Your task to perform on an android device: Look up the top rated headphones on Amazon. Image 0: 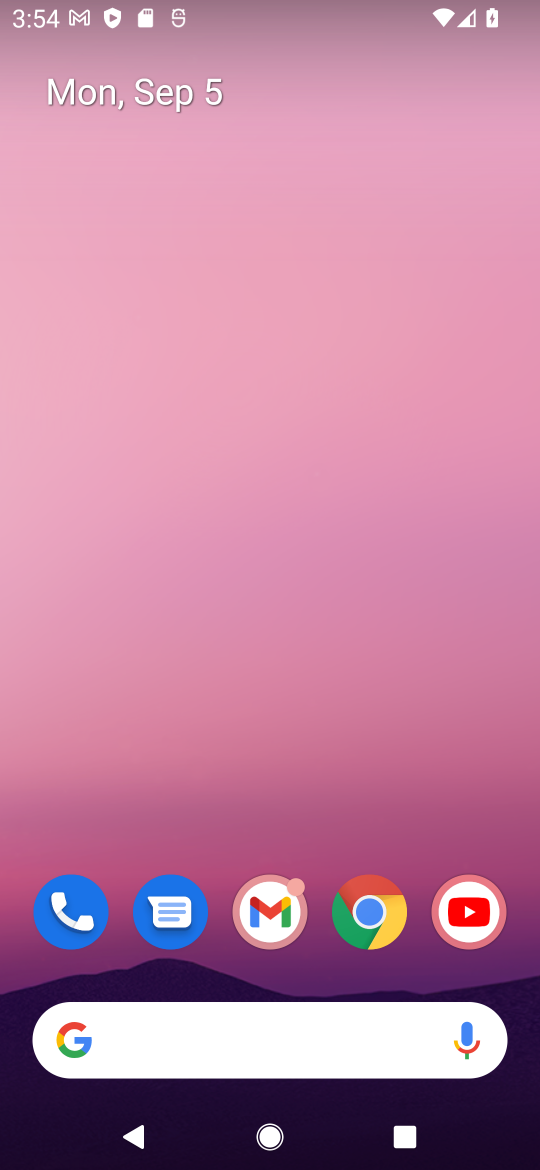
Step 0: click (339, 923)
Your task to perform on an android device: Look up the top rated headphones on Amazon. Image 1: 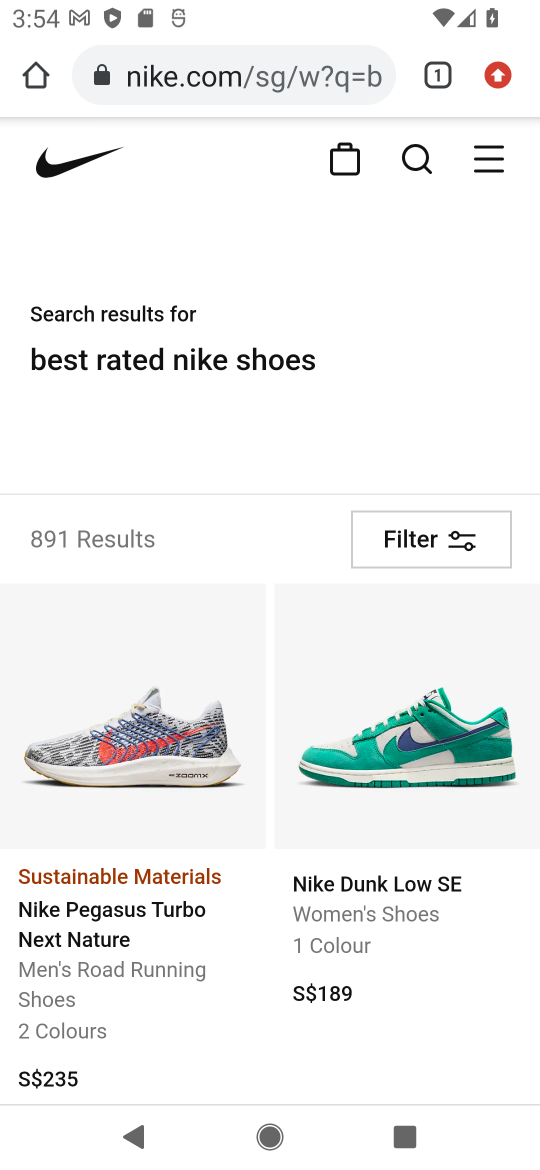
Step 1: click (306, 71)
Your task to perform on an android device: Look up the top rated headphones on Amazon. Image 2: 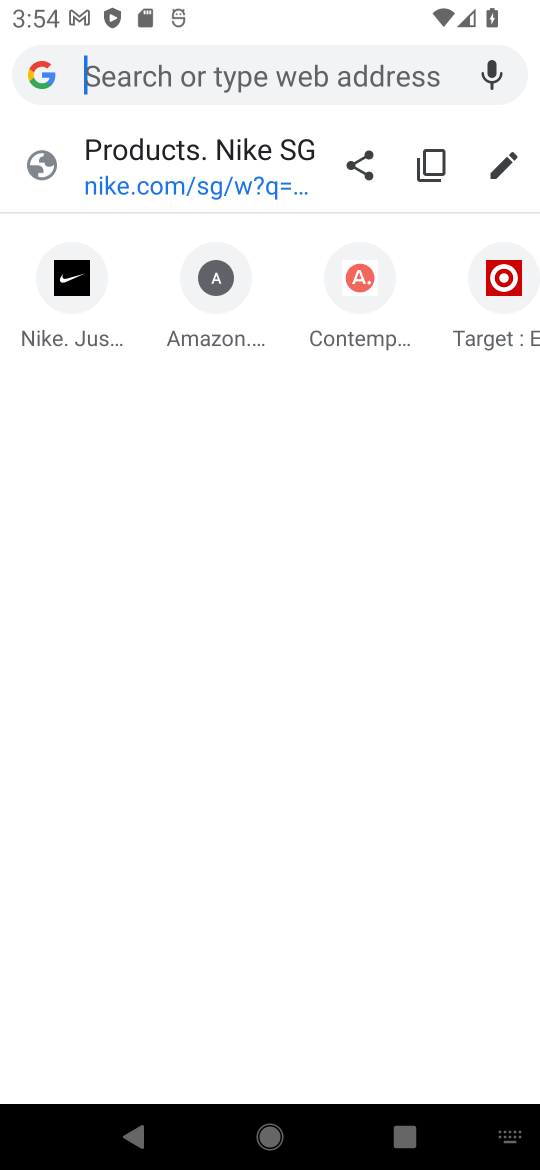
Step 2: type "amazon"
Your task to perform on an android device: Look up the top rated headphones on Amazon. Image 3: 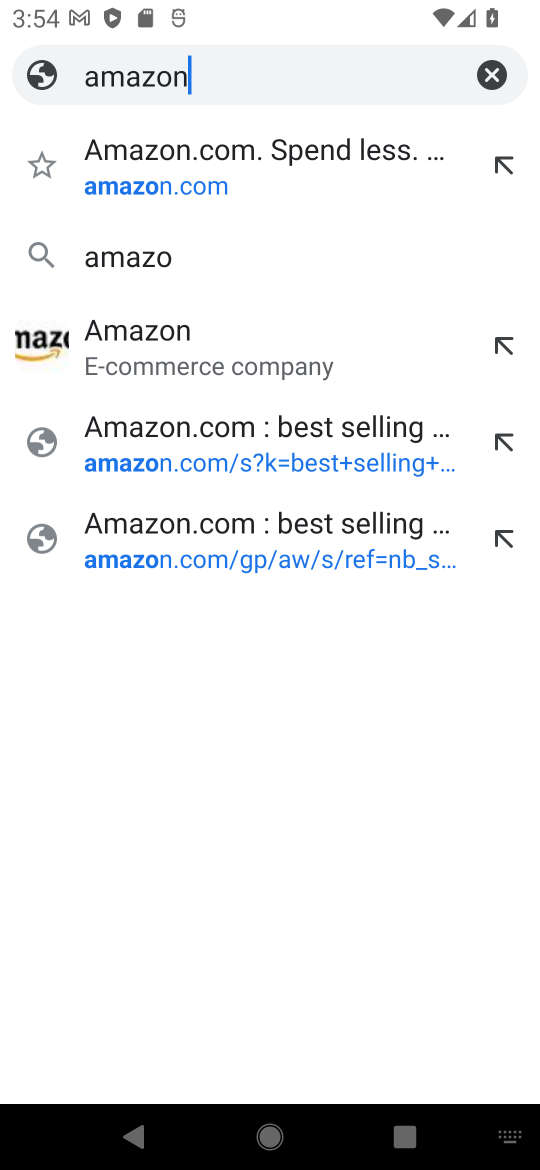
Step 3: type ""
Your task to perform on an android device: Look up the top rated headphones on Amazon. Image 4: 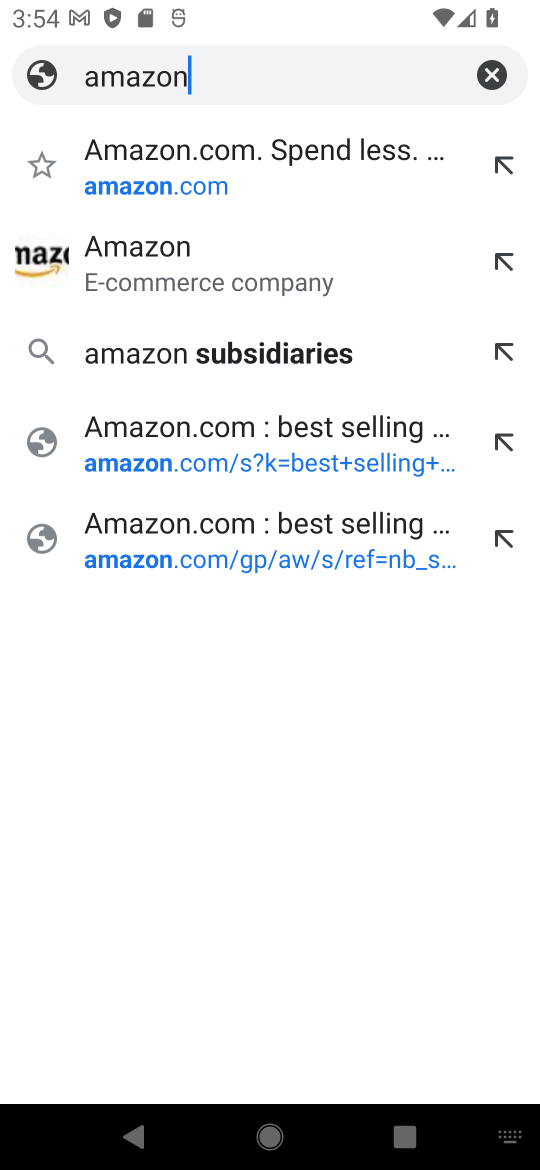
Step 4: press enter
Your task to perform on an android device: Look up the top rated headphones on Amazon. Image 5: 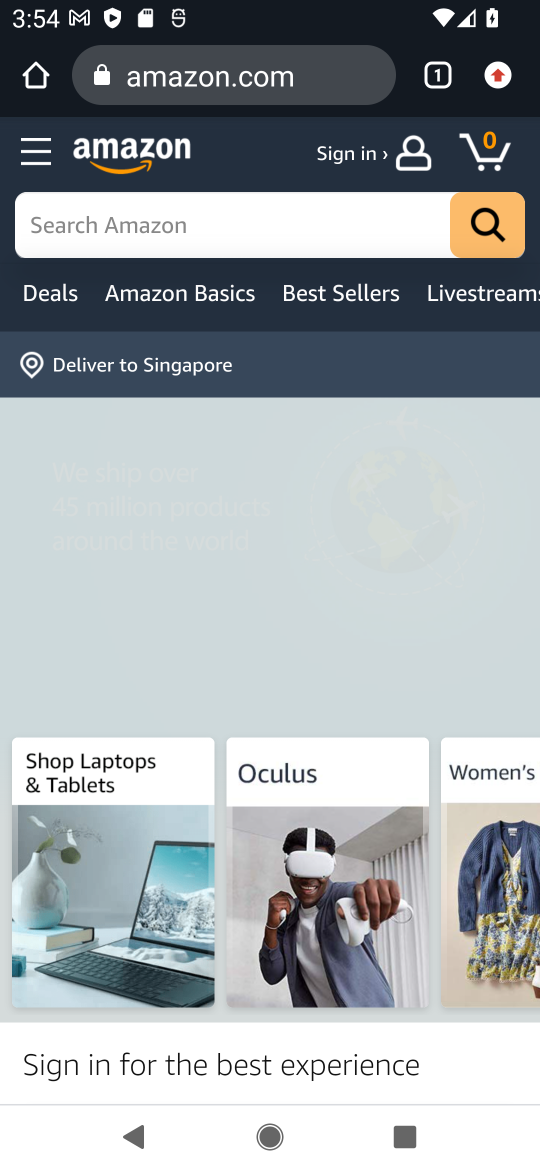
Step 5: click (334, 215)
Your task to perform on an android device: Look up the top rated headphones on Amazon. Image 6: 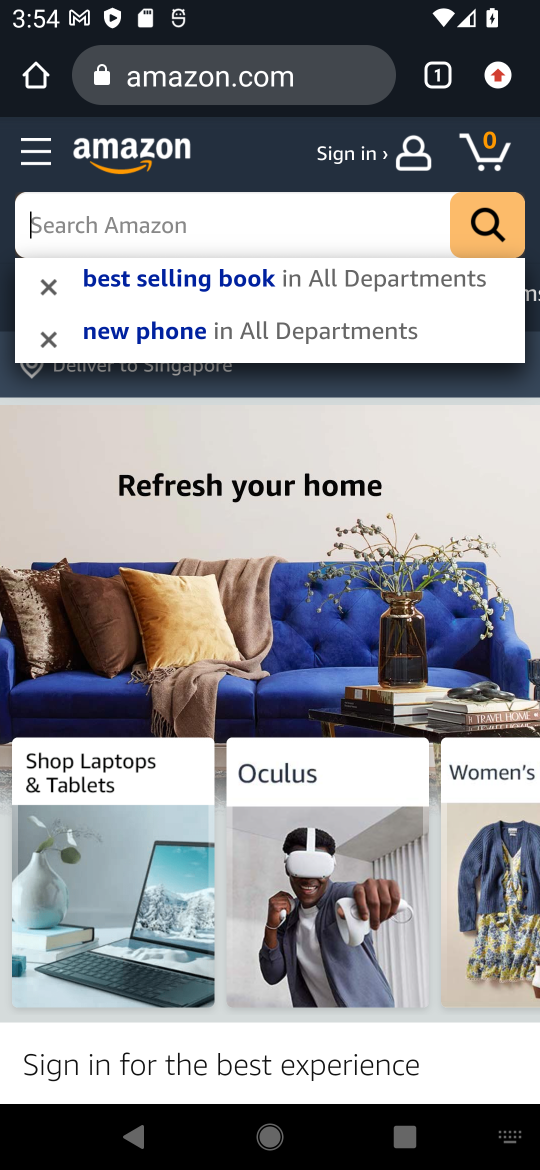
Step 6: type "headphones"
Your task to perform on an android device: Look up the top rated headphones on Amazon. Image 7: 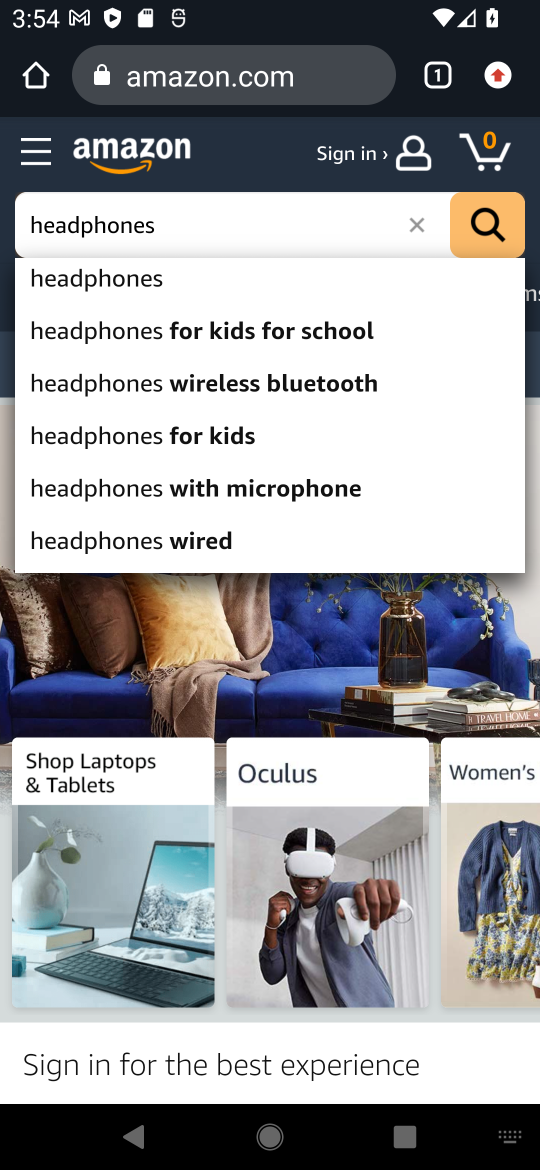
Step 7: press enter
Your task to perform on an android device: Look up the top rated headphones on Amazon. Image 8: 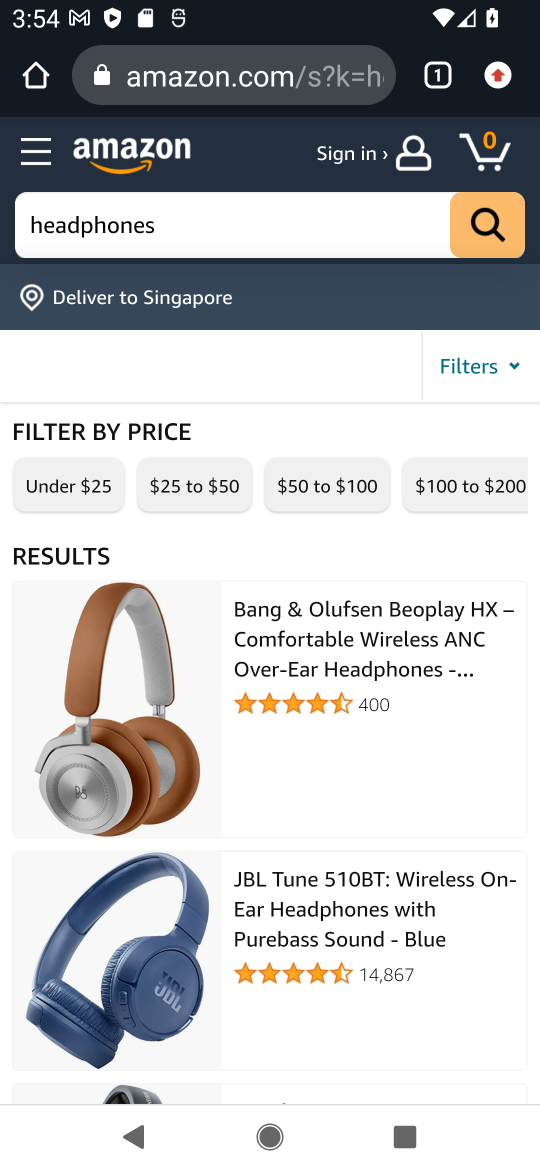
Step 8: click (494, 364)
Your task to perform on an android device: Look up the top rated headphones on Amazon. Image 9: 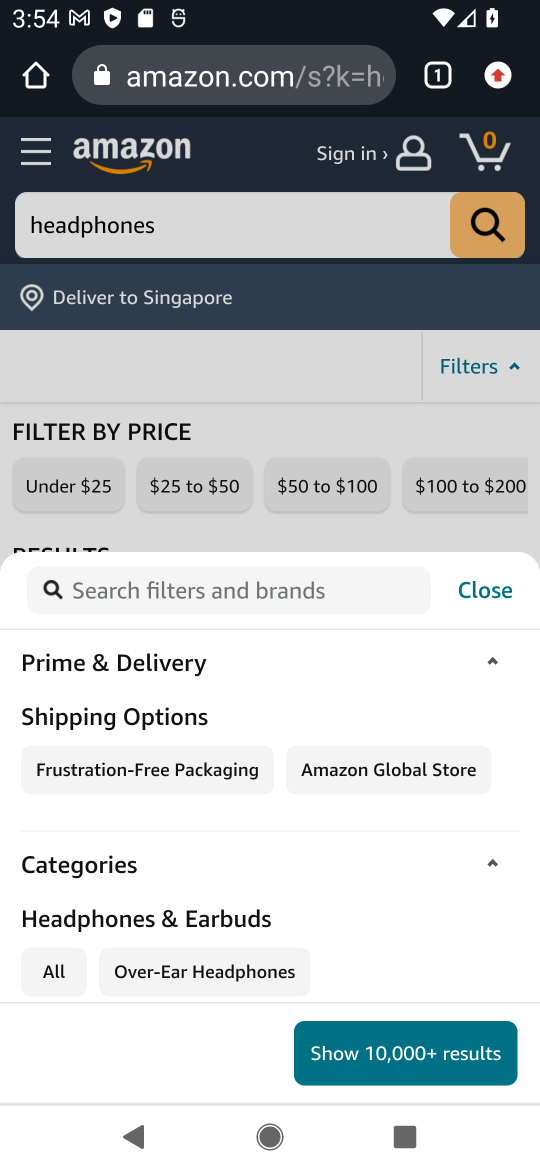
Step 9: drag from (404, 869) to (412, 648)
Your task to perform on an android device: Look up the top rated headphones on Amazon. Image 10: 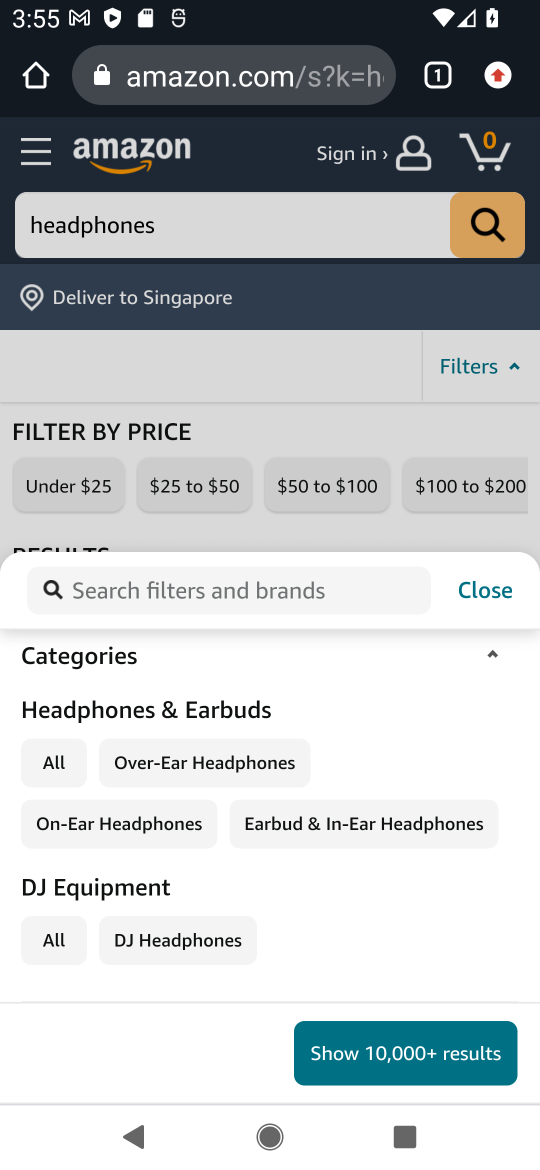
Step 10: drag from (408, 862) to (422, 683)
Your task to perform on an android device: Look up the top rated headphones on Amazon. Image 11: 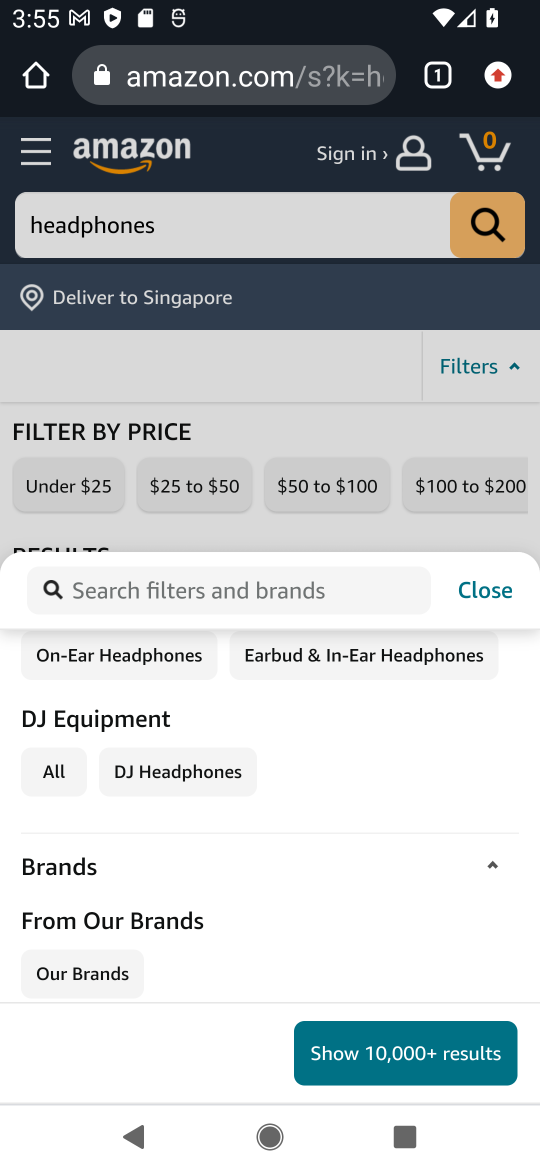
Step 11: drag from (424, 891) to (418, 722)
Your task to perform on an android device: Look up the top rated headphones on Amazon. Image 12: 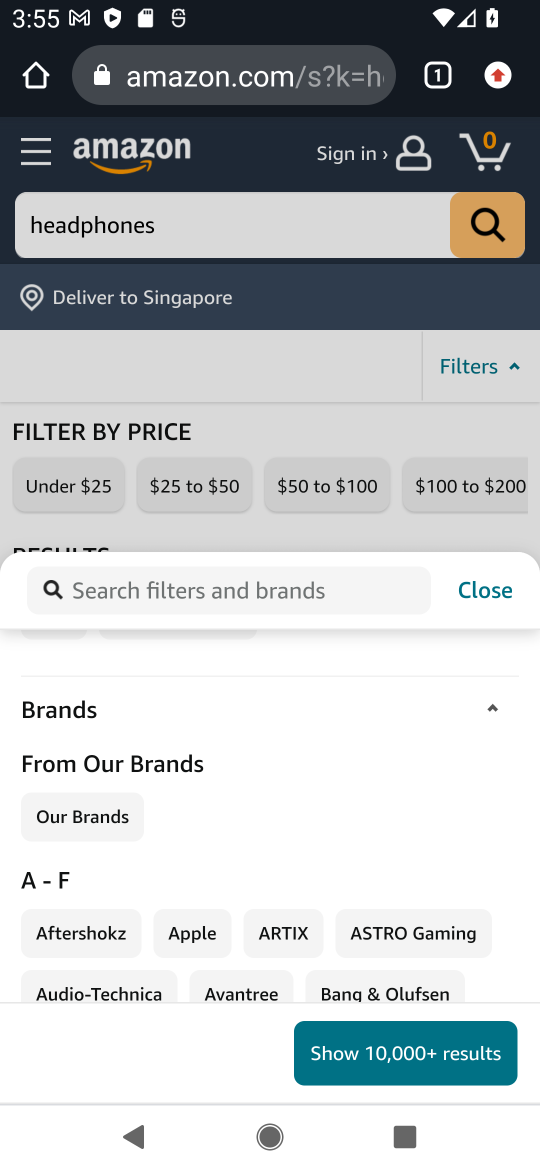
Step 12: drag from (411, 909) to (411, 656)
Your task to perform on an android device: Look up the top rated headphones on Amazon. Image 13: 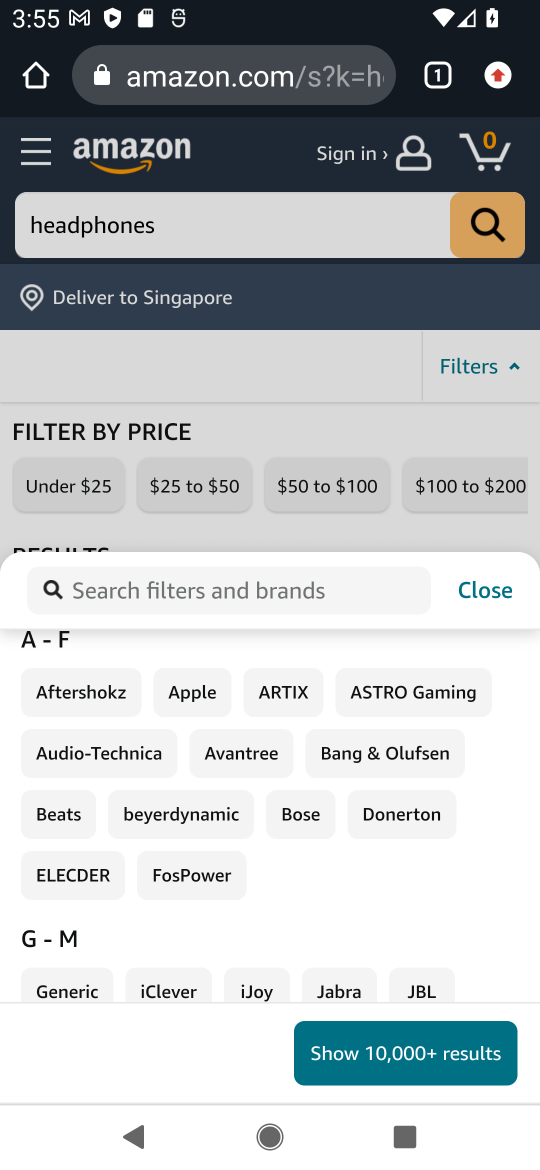
Step 13: drag from (407, 921) to (410, 676)
Your task to perform on an android device: Look up the top rated headphones on Amazon. Image 14: 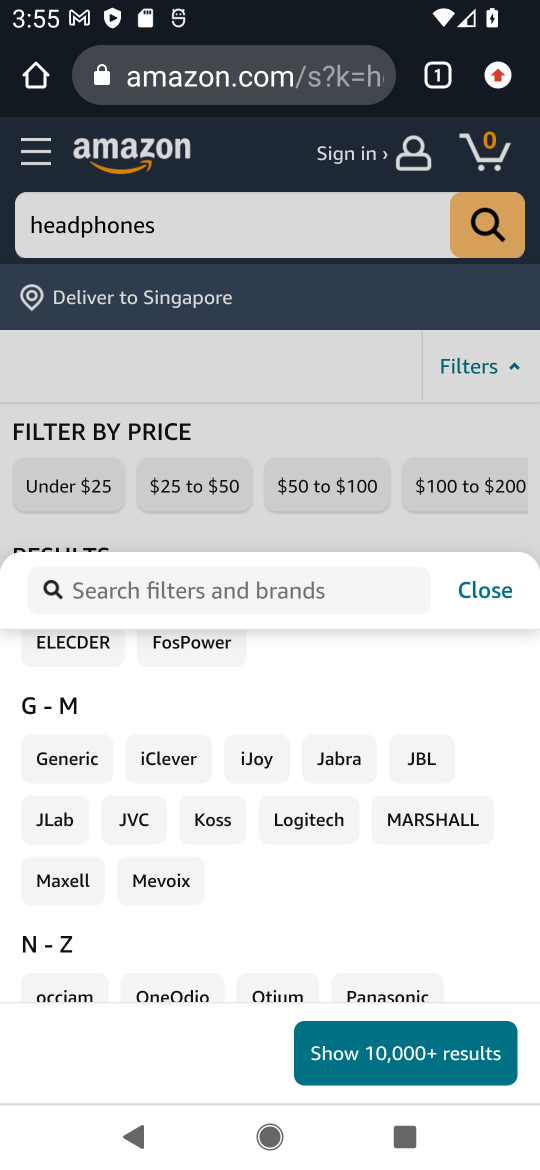
Step 14: drag from (392, 910) to (393, 661)
Your task to perform on an android device: Look up the top rated headphones on Amazon. Image 15: 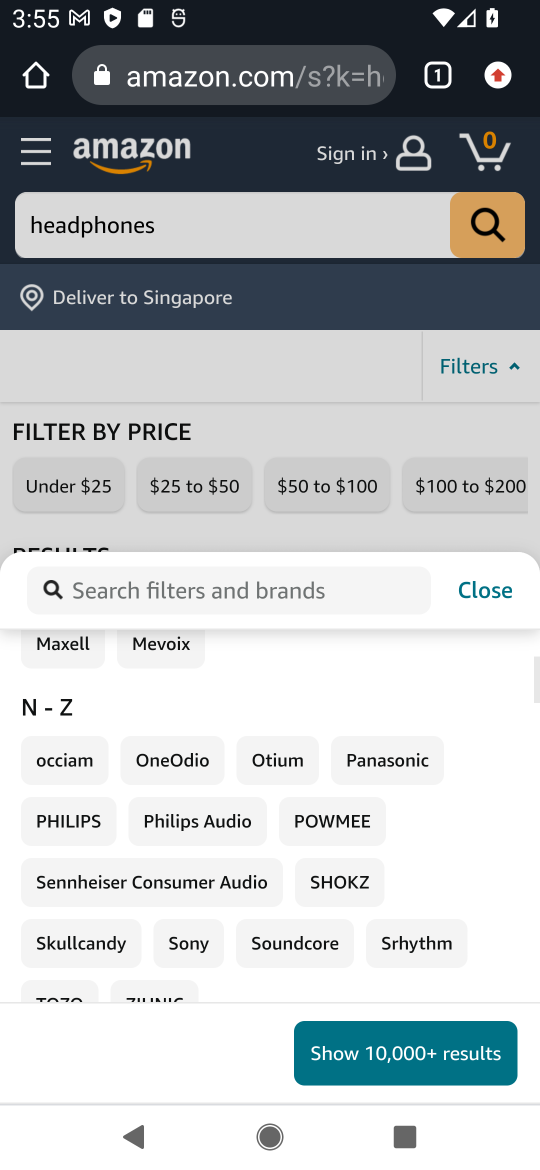
Step 15: drag from (421, 969) to (428, 653)
Your task to perform on an android device: Look up the top rated headphones on Amazon. Image 16: 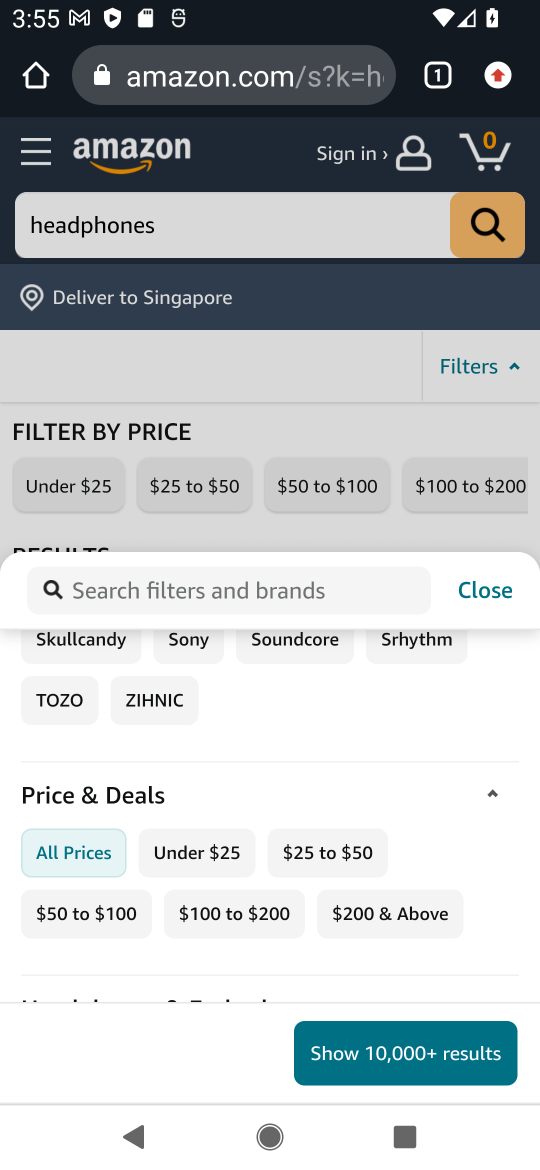
Step 16: drag from (397, 942) to (417, 556)
Your task to perform on an android device: Look up the top rated headphones on Amazon. Image 17: 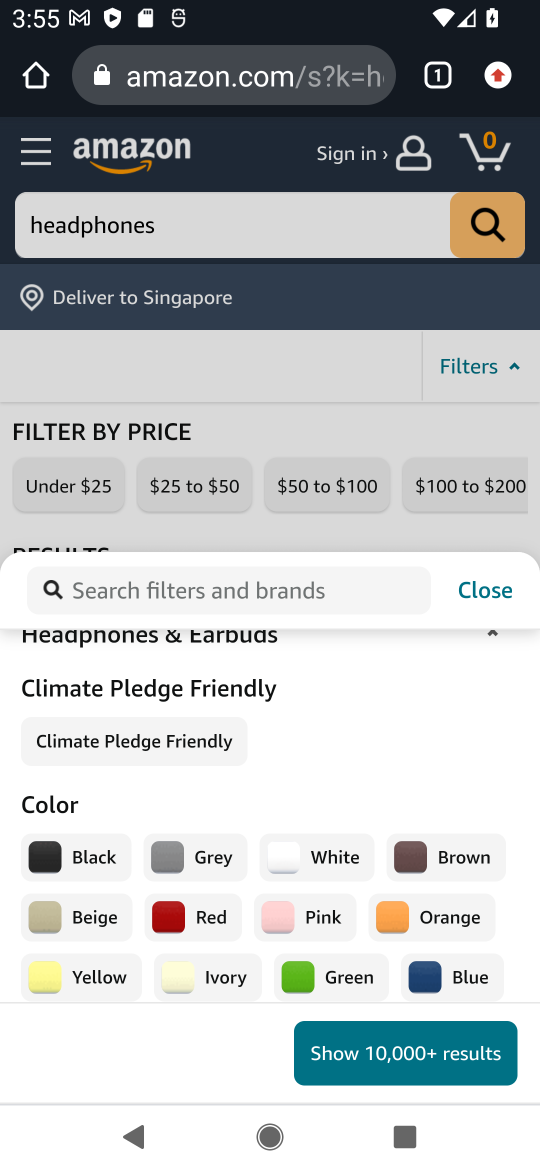
Step 17: drag from (383, 853) to (404, 568)
Your task to perform on an android device: Look up the top rated headphones on Amazon. Image 18: 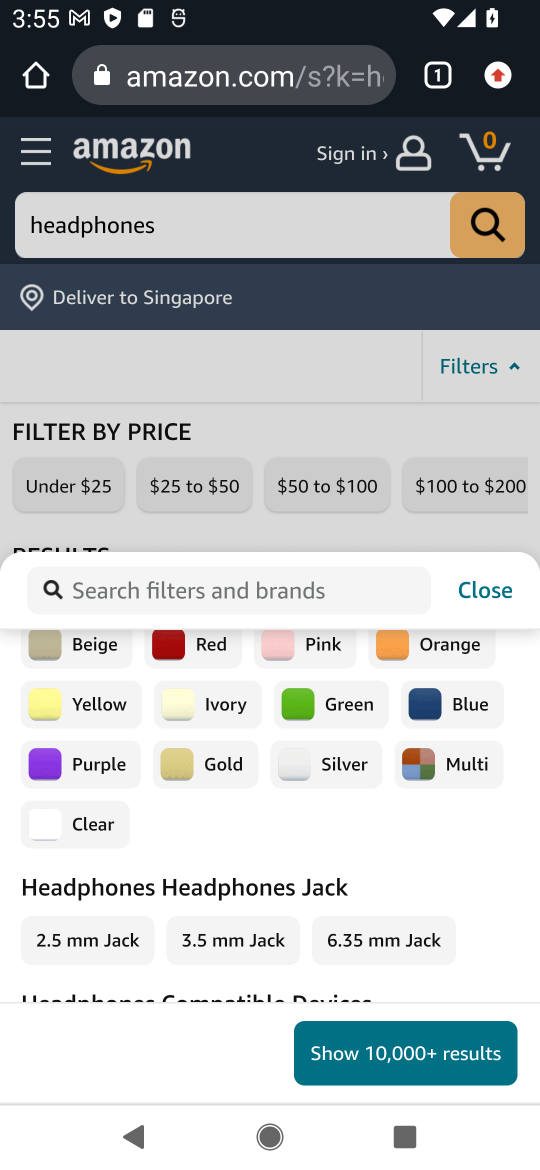
Step 18: drag from (420, 818) to (435, 535)
Your task to perform on an android device: Look up the top rated headphones on Amazon. Image 19: 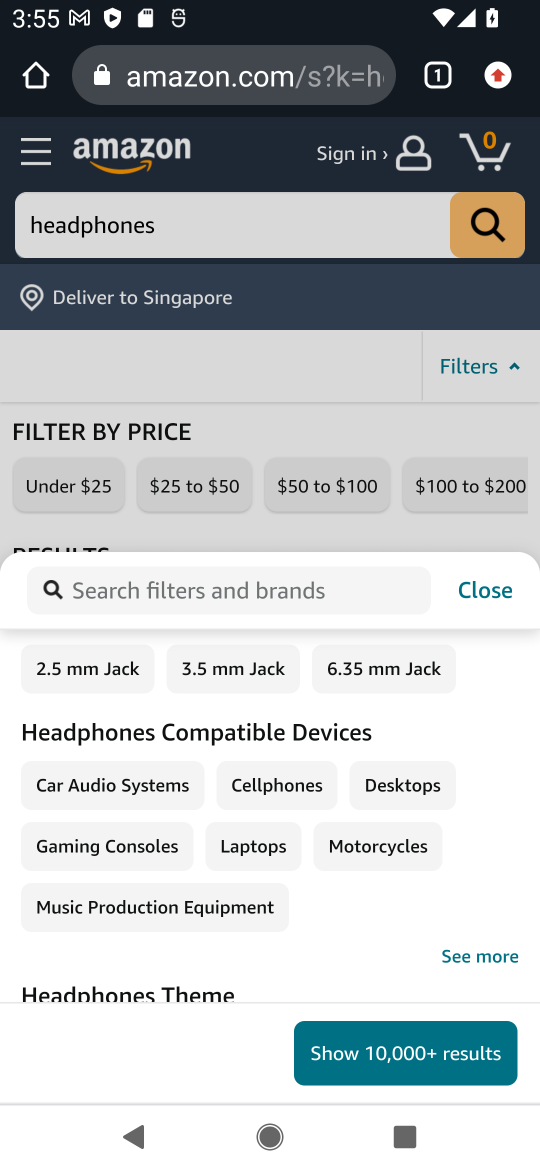
Step 19: drag from (394, 790) to (416, 512)
Your task to perform on an android device: Look up the top rated headphones on Amazon. Image 20: 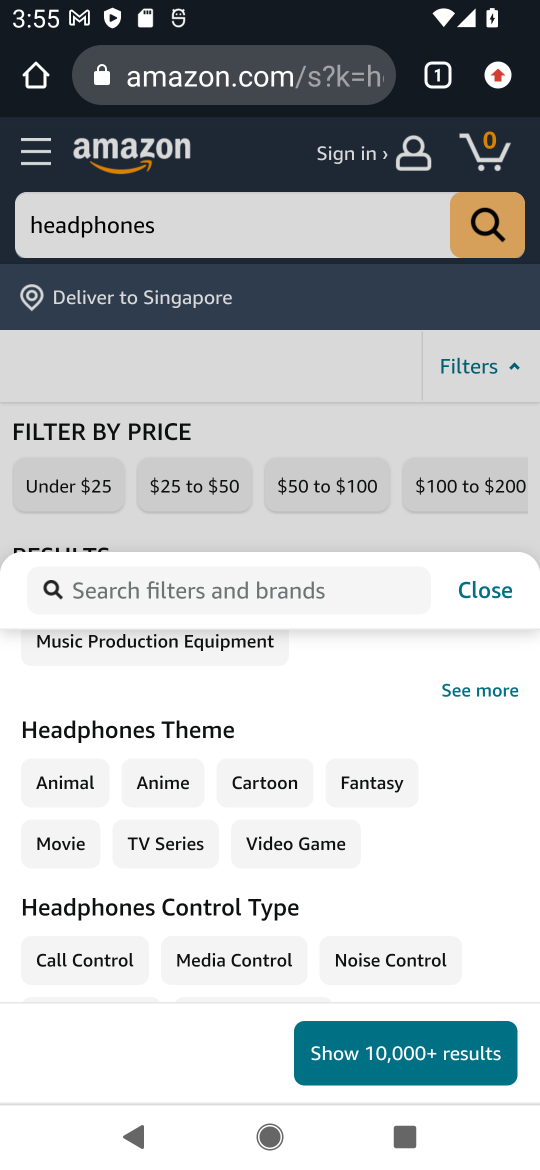
Step 20: drag from (379, 781) to (383, 522)
Your task to perform on an android device: Look up the top rated headphones on Amazon. Image 21: 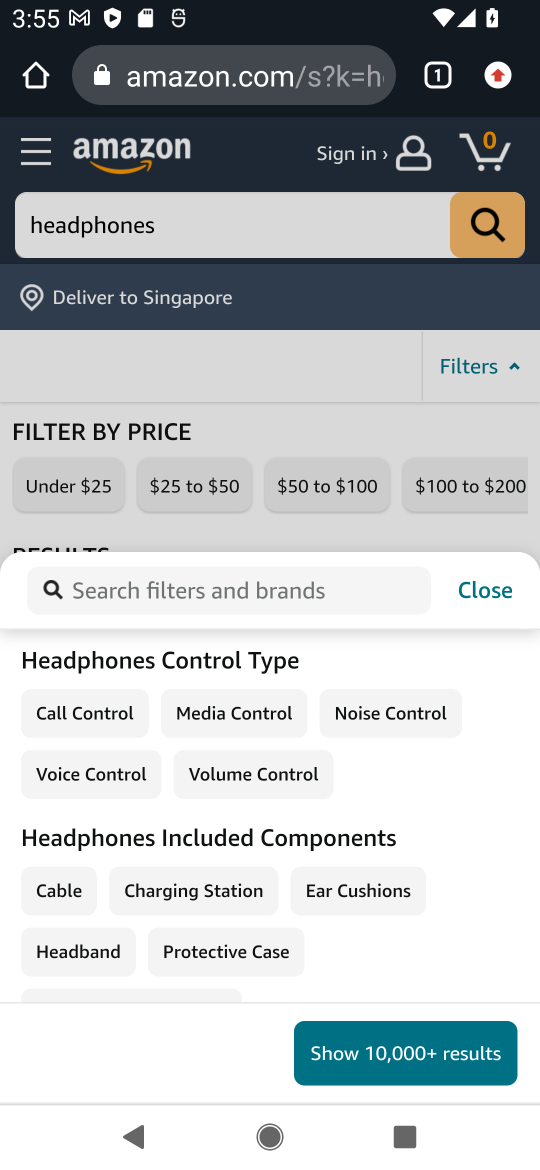
Step 21: drag from (337, 931) to (378, 555)
Your task to perform on an android device: Look up the top rated headphones on Amazon. Image 22: 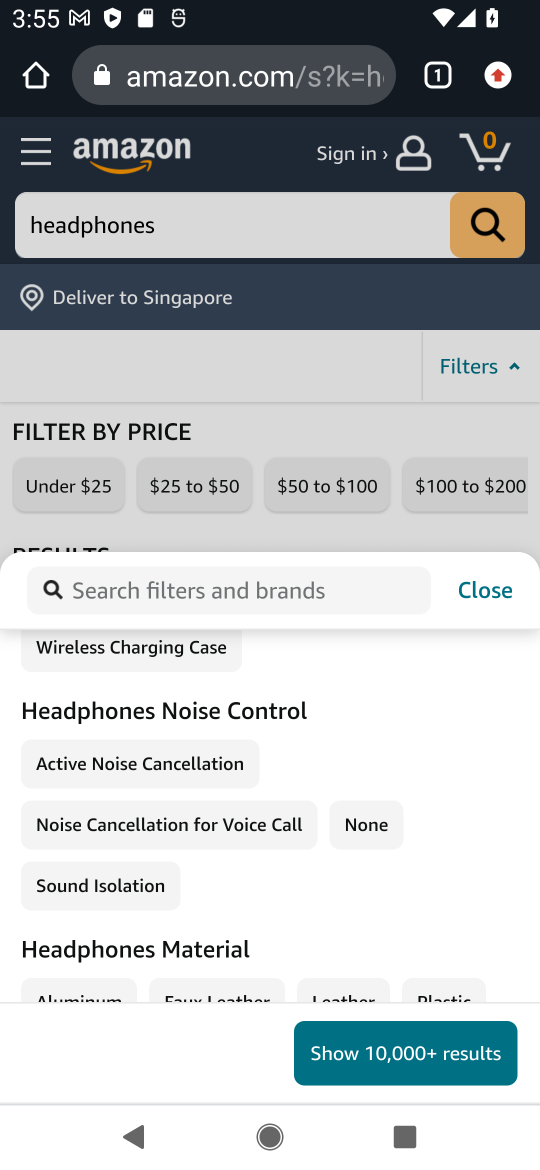
Step 22: drag from (345, 949) to (391, 625)
Your task to perform on an android device: Look up the top rated headphones on Amazon. Image 23: 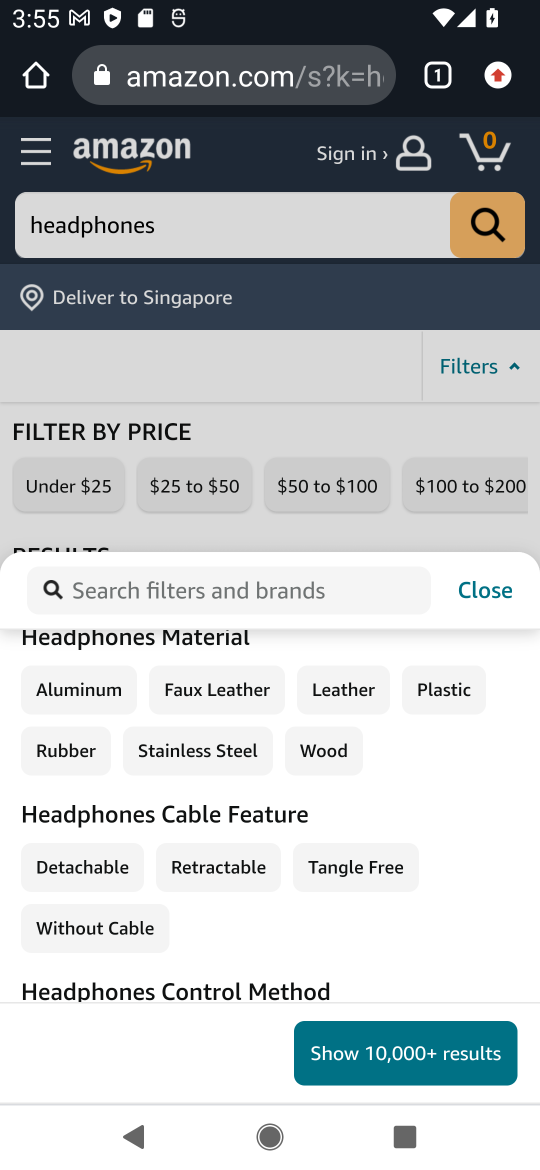
Step 23: drag from (357, 953) to (386, 608)
Your task to perform on an android device: Look up the top rated headphones on Amazon. Image 24: 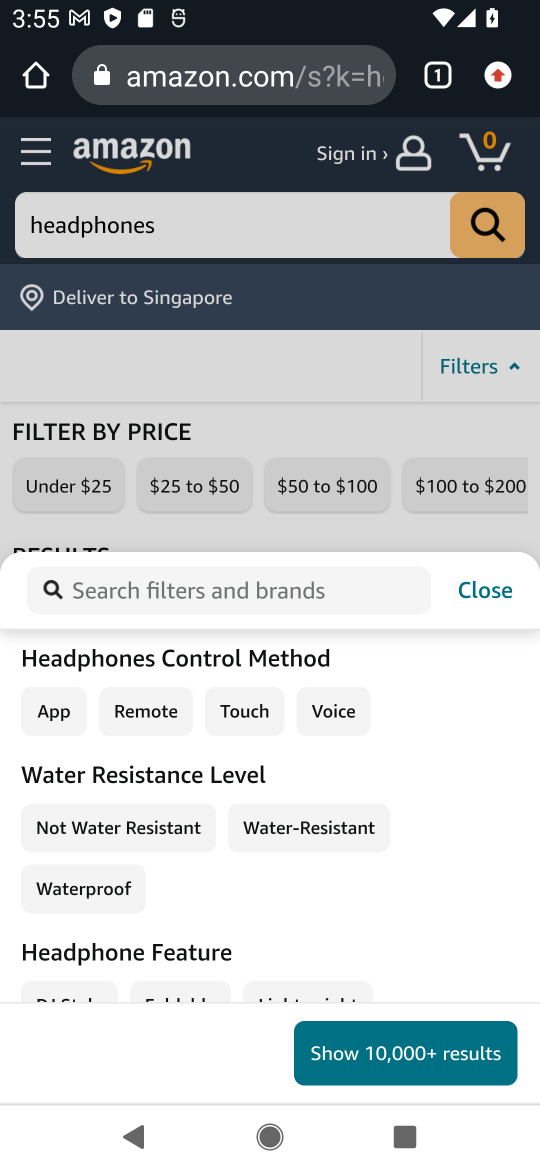
Step 24: drag from (328, 940) to (337, 608)
Your task to perform on an android device: Look up the top rated headphones on Amazon. Image 25: 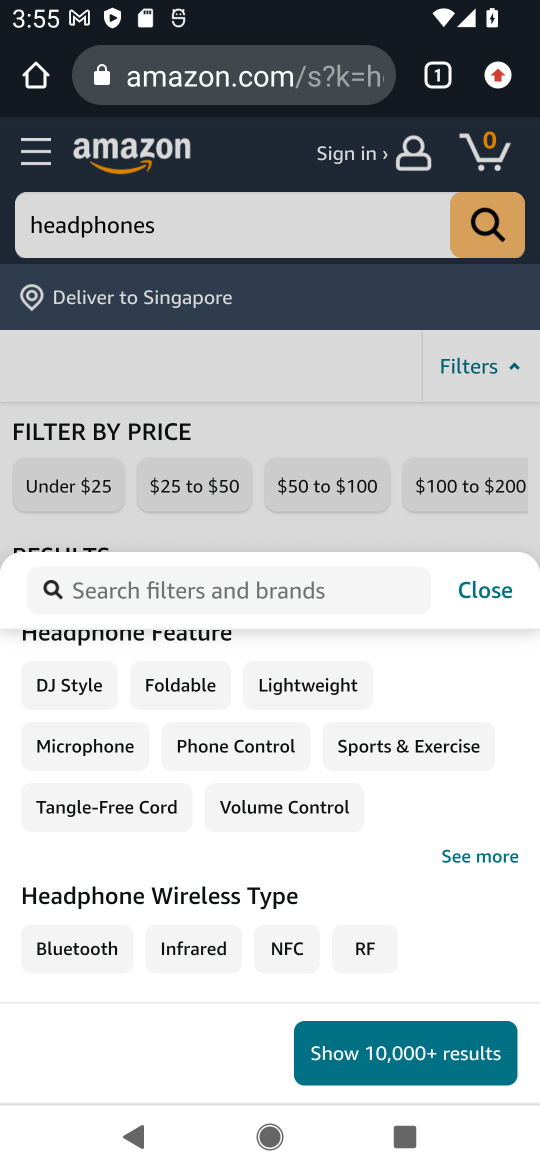
Step 25: drag from (375, 694) to (383, 622)
Your task to perform on an android device: Look up the top rated headphones on Amazon. Image 26: 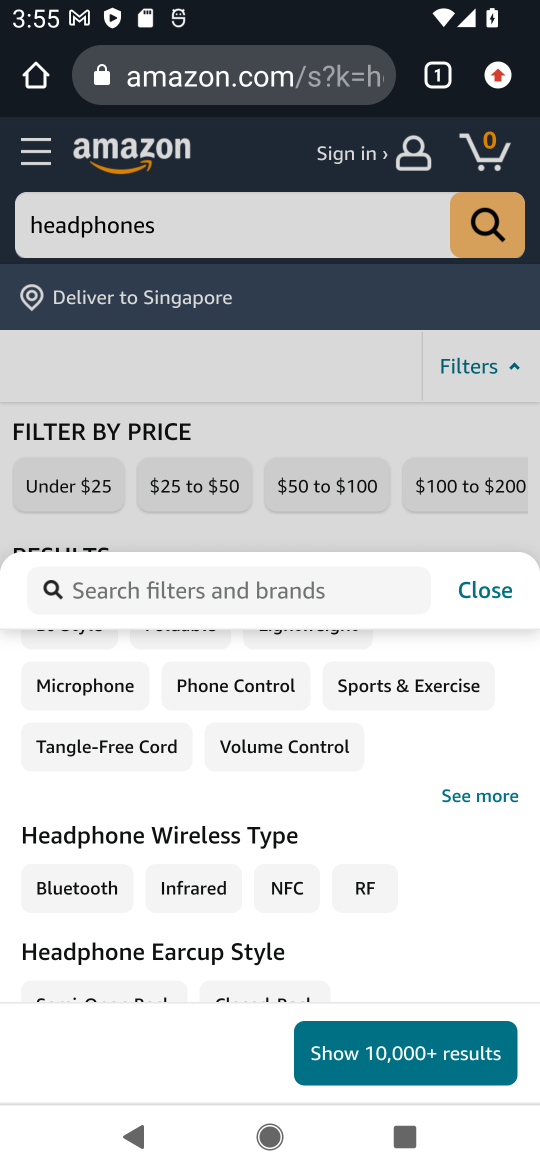
Step 26: drag from (352, 924) to (373, 629)
Your task to perform on an android device: Look up the top rated headphones on Amazon. Image 27: 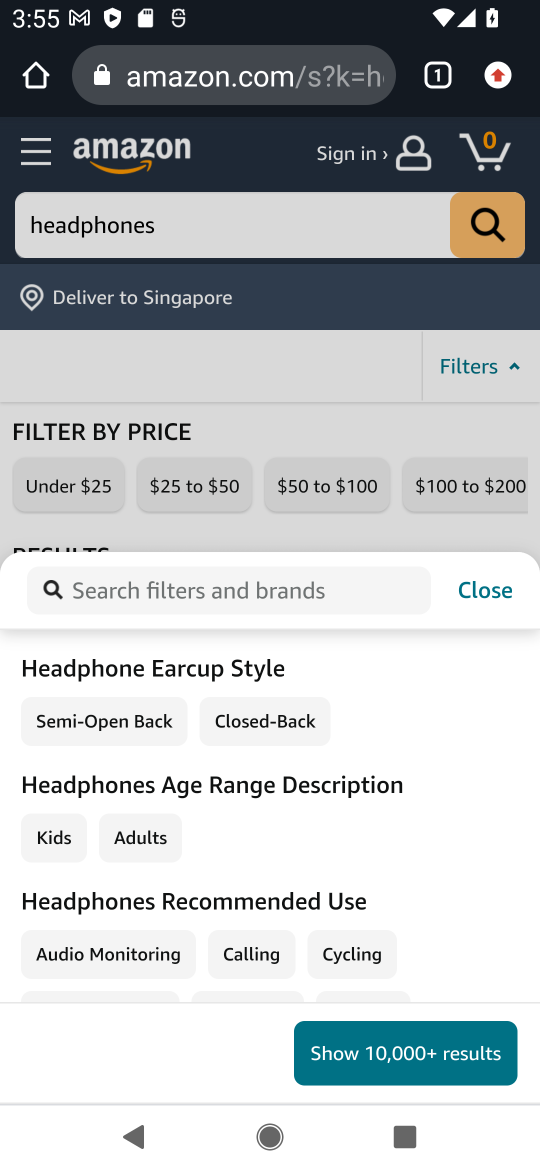
Step 27: drag from (386, 924) to (412, 688)
Your task to perform on an android device: Look up the top rated headphones on Amazon. Image 28: 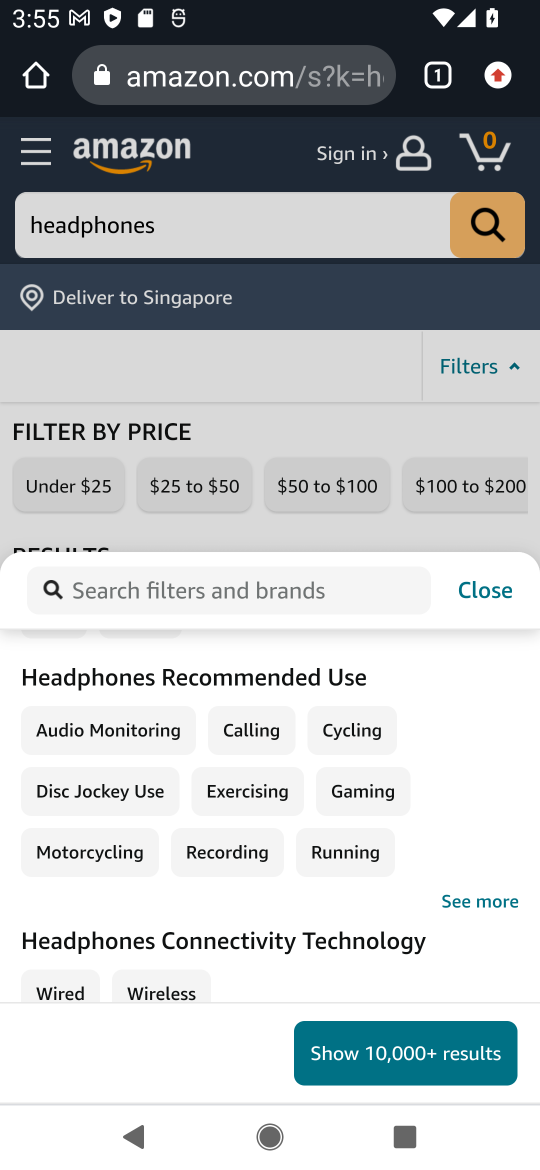
Step 28: drag from (408, 891) to (422, 653)
Your task to perform on an android device: Look up the top rated headphones on Amazon. Image 29: 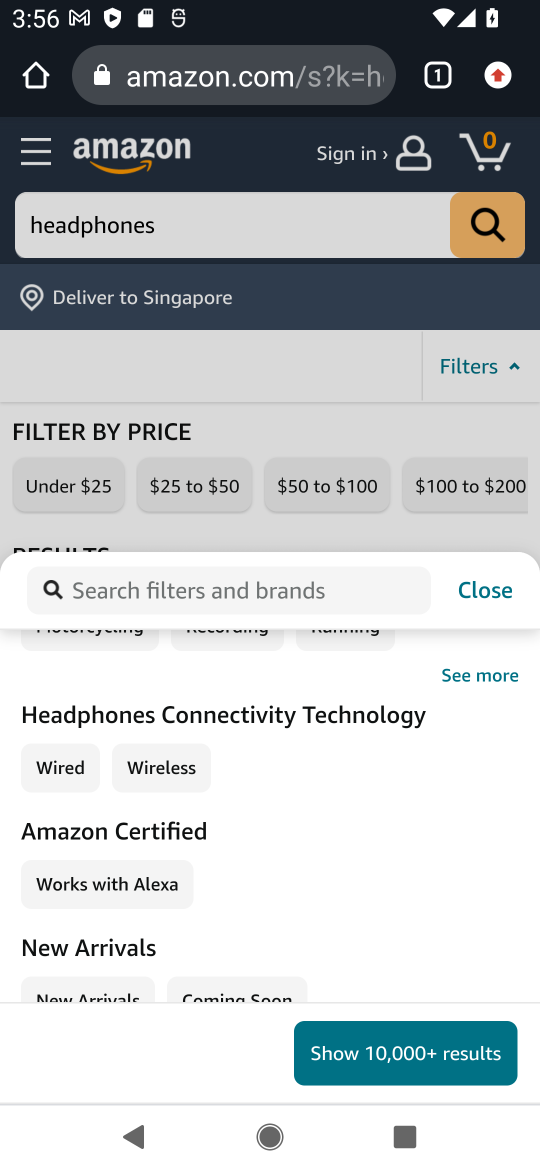
Step 29: drag from (376, 933) to (412, 609)
Your task to perform on an android device: Look up the top rated headphones on Amazon. Image 30: 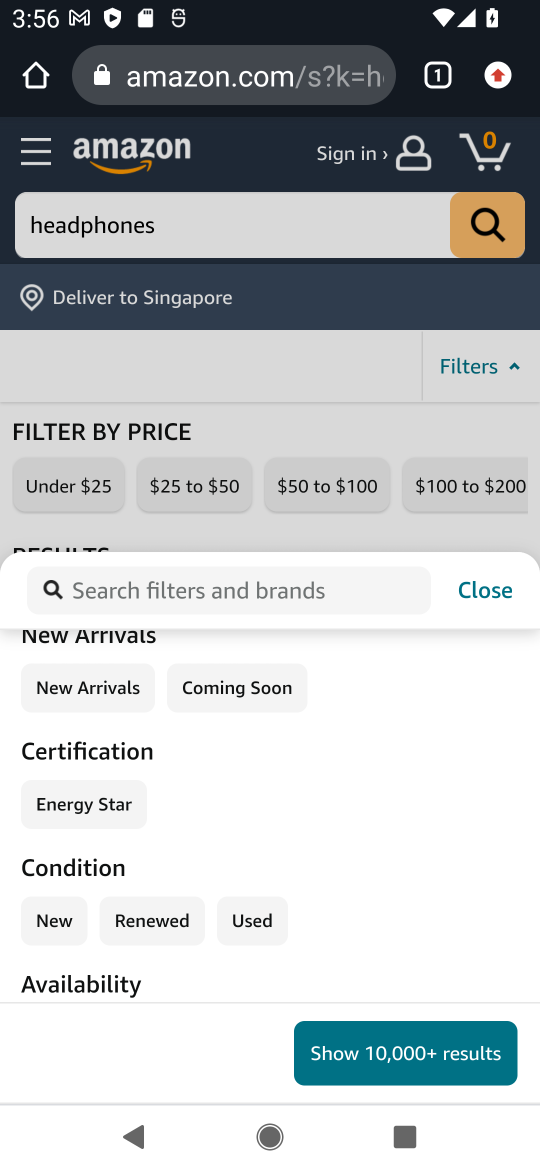
Step 30: drag from (374, 935) to (405, 720)
Your task to perform on an android device: Look up the top rated headphones on Amazon. Image 31: 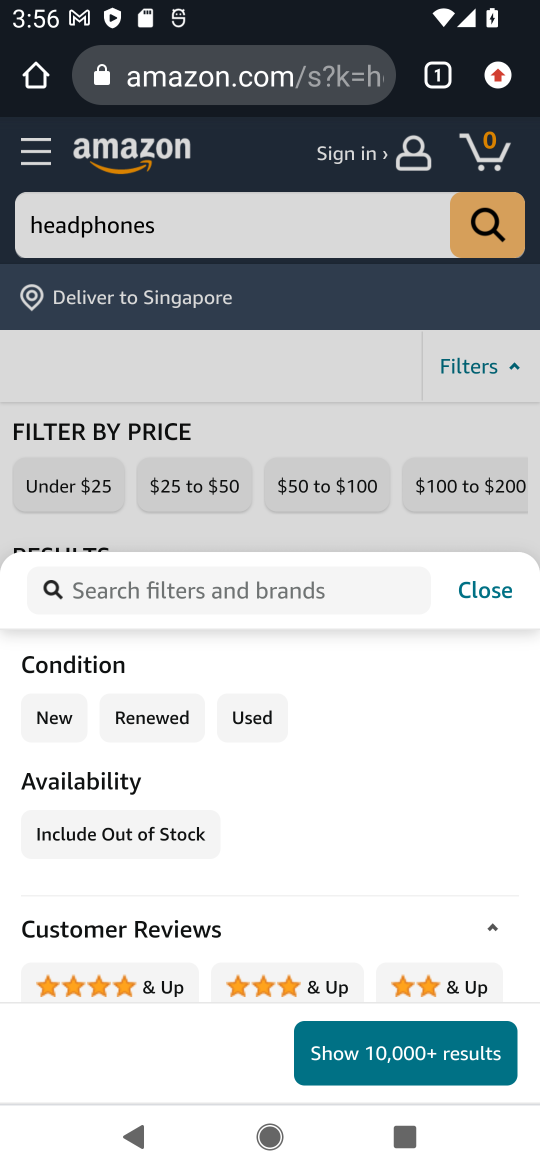
Step 31: drag from (414, 797) to (416, 714)
Your task to perform on an android device: Look up the top rated headphones on Amazon. Image 32: 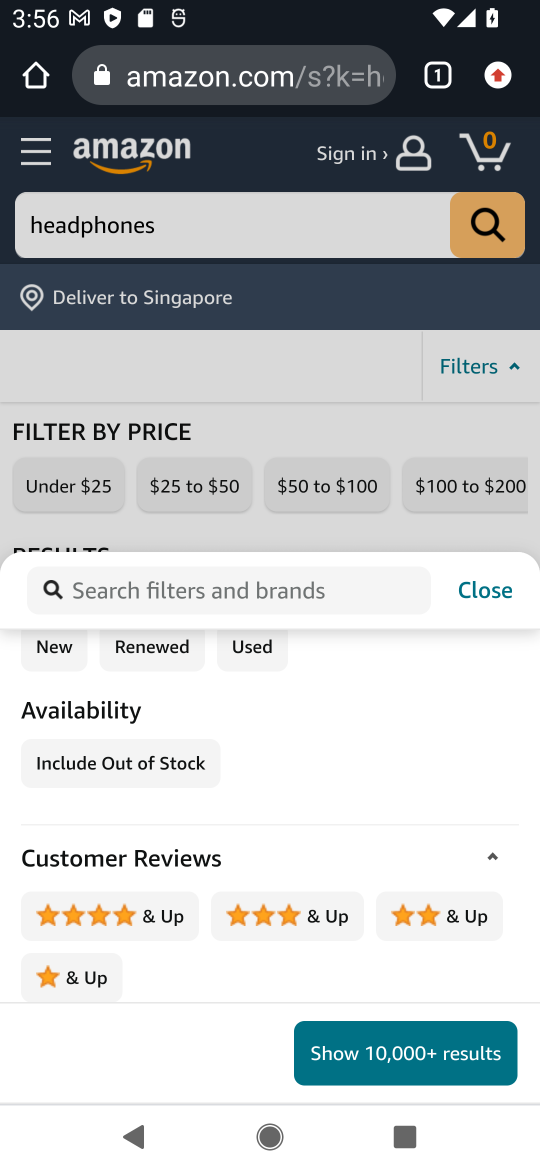
Step 32: click (102, 922)
Your task to perform on an android device: Look up the top rated headphones on Amazon. Image 33: 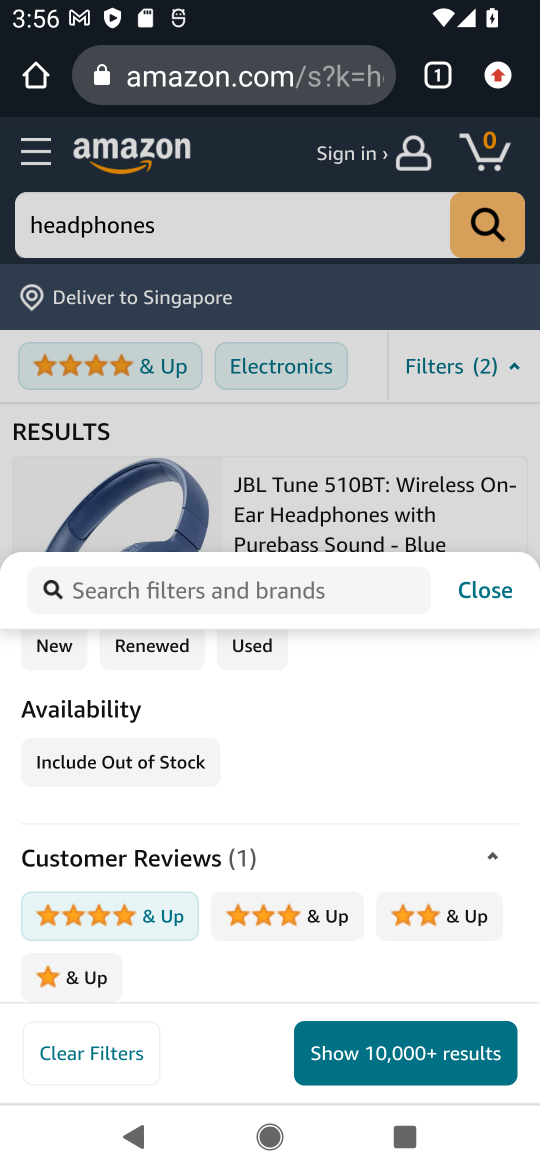
Step 33: click (414, 1063)
Your task to perform on an android device: Look up the top rated headphones on Amazon. Image 34: 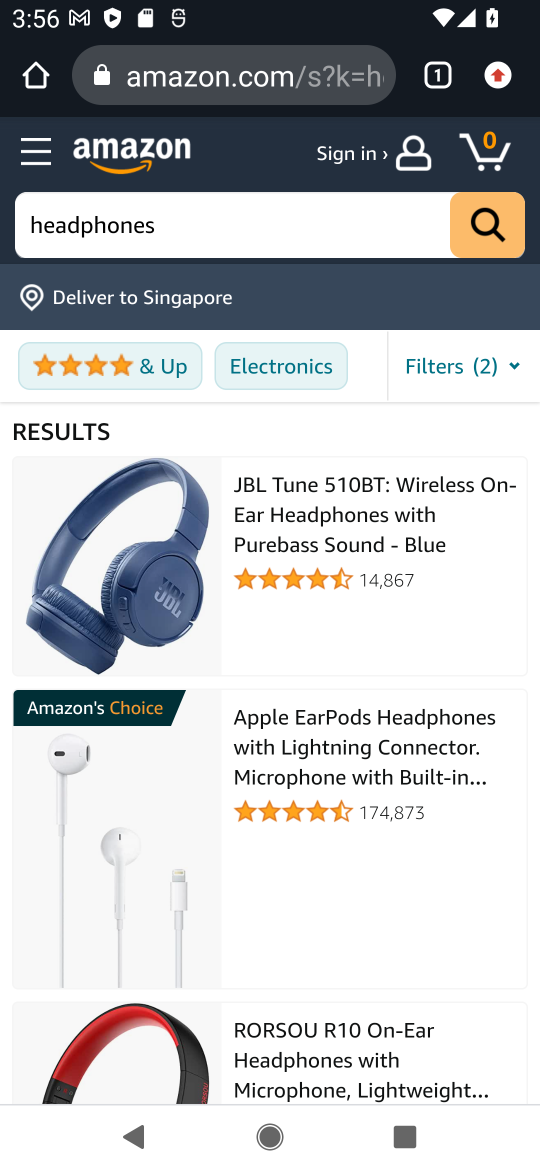
Step 34: task complete